Your task to perform on an android device: Turn off the flashlight Image 0: 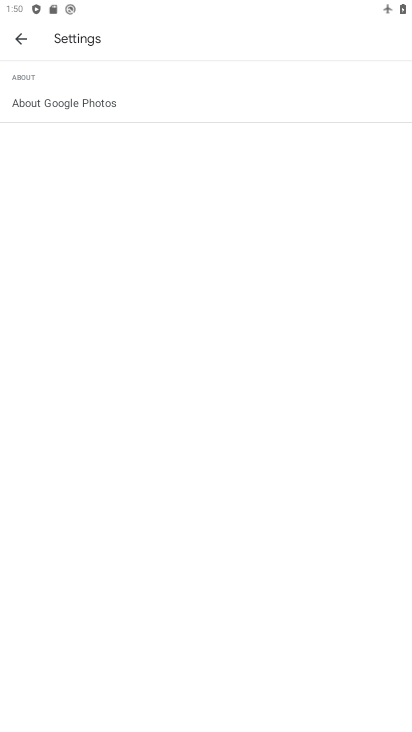
Step 0: click (18, 46)
Your task to perform on an android device: Turn off the flashlight Image 1: 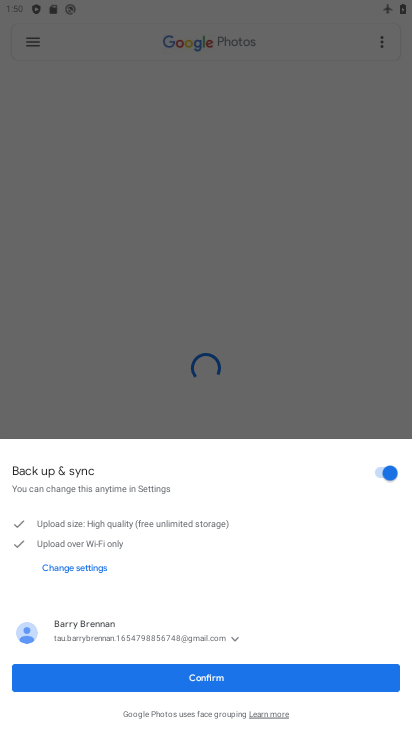
Step 1: task complete